Your task to perform on an android device: open sync settings in chrome Image 0: 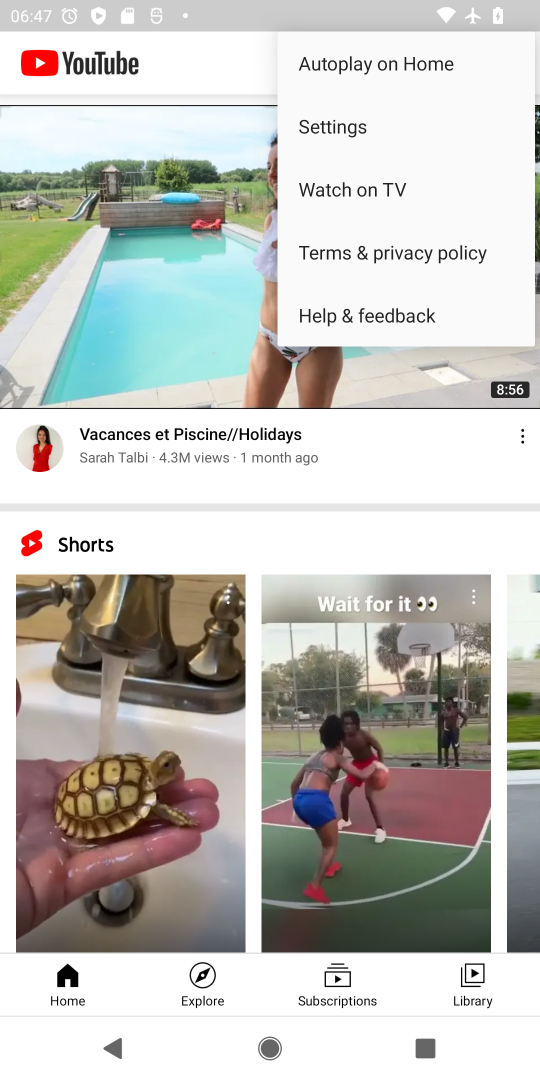
Step 0: press home button
Your task to perform on an android device: open sync settings in chrome Image 1: 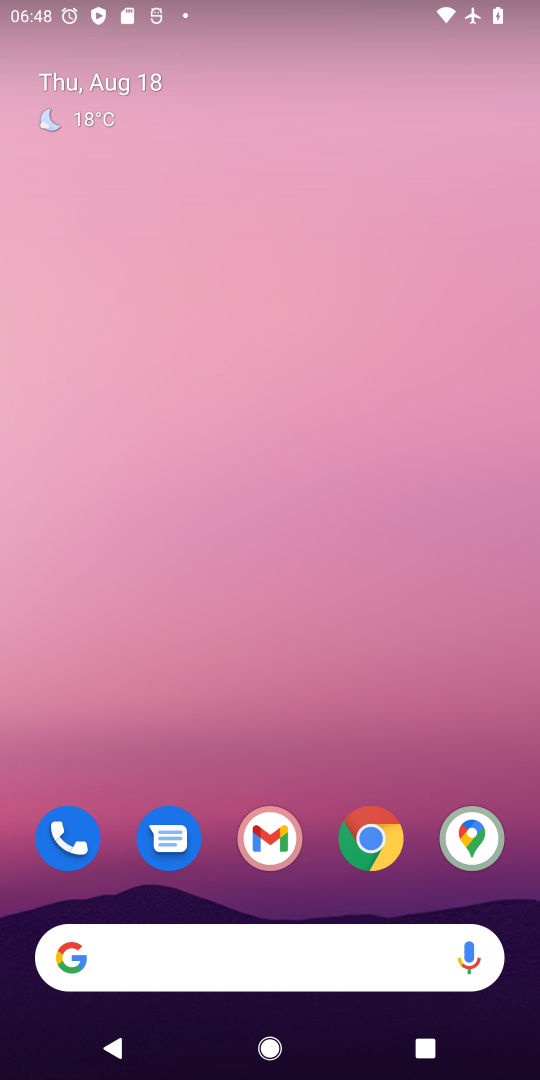
Step 1: click (363, 842)
Your task to perform on an android device: open sync settings in chrome Image 2: 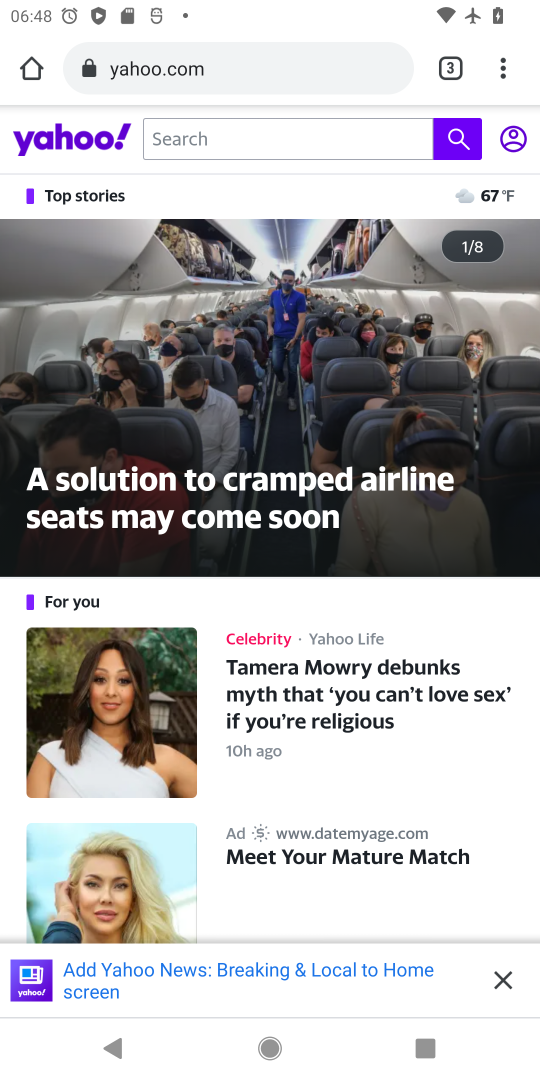
Step 2: drag from (500, 63) to (306, 920)
Your task to perform on an android device: open sync settings in chrome Image 3: 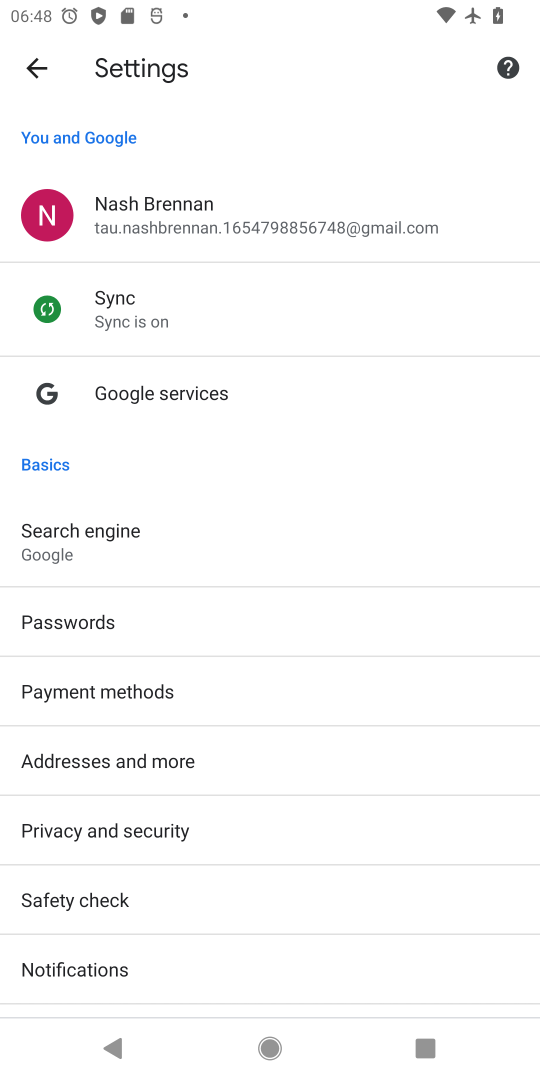
Step 3: click (114, 341)
Your task to perform on an android device: open sync settings in chrome Image 4: 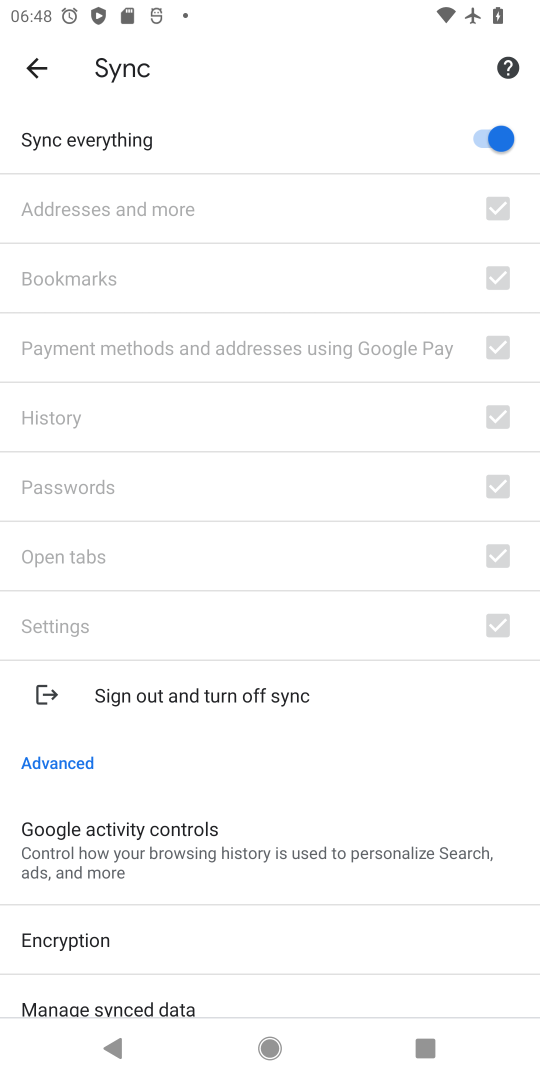
Step 4: task complete